Your task to perform on an android device: find which apps use the phone's location Image 0: 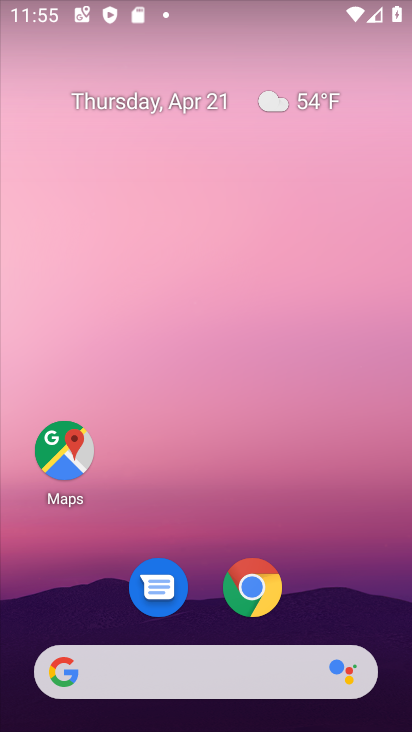
Step 0: drag from (341, 573) to (312, 4)
Your task to perform on an android device: find which apps use the phone's location Image 1: 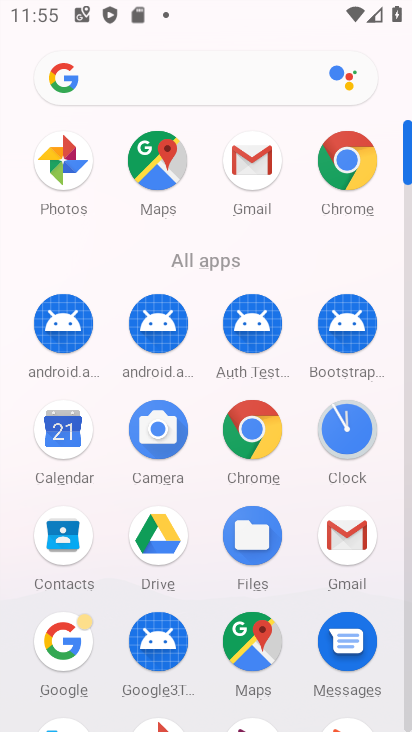
Step 1: drag from (408, 616) to (410, 457)
Your task to perform on an android device: find which apps use the phone's location Image 2: 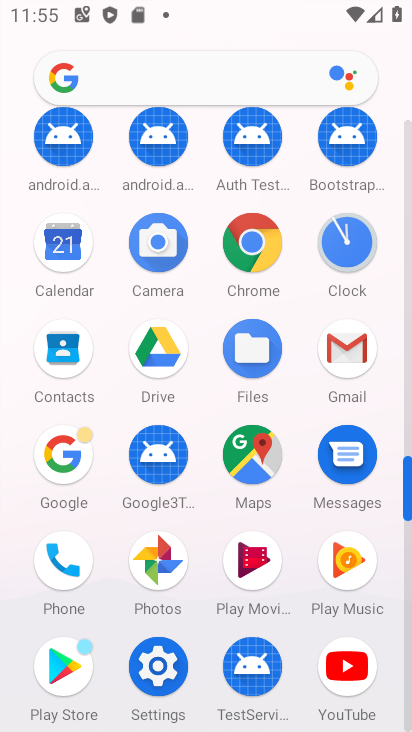
Step 2: click (151, 671)
Your task to perform on an android device: find which apps use the phone's location Image 3: 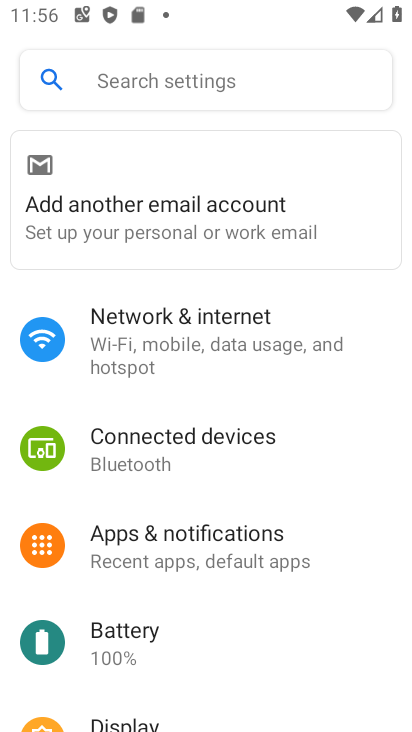
Step 3: drag from (266, 629) to (245, 140)
Your task to perform on an android device: find which apps use the phone's location Image 4: 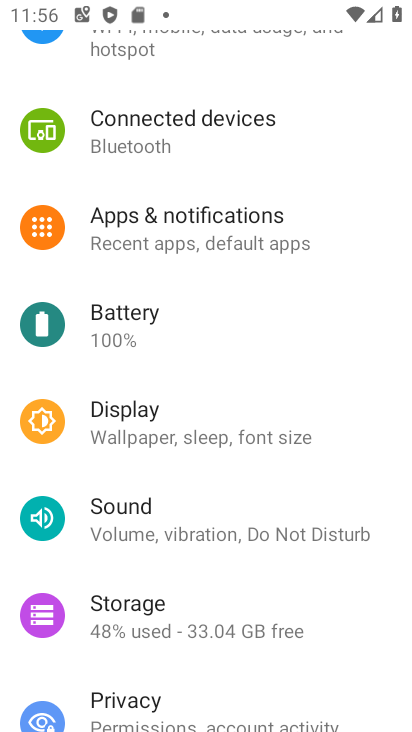
Step 4: drag from (242, 650) to (248, 276)
Your task to perform on an android device: find which apps use the phone's location Image 5: 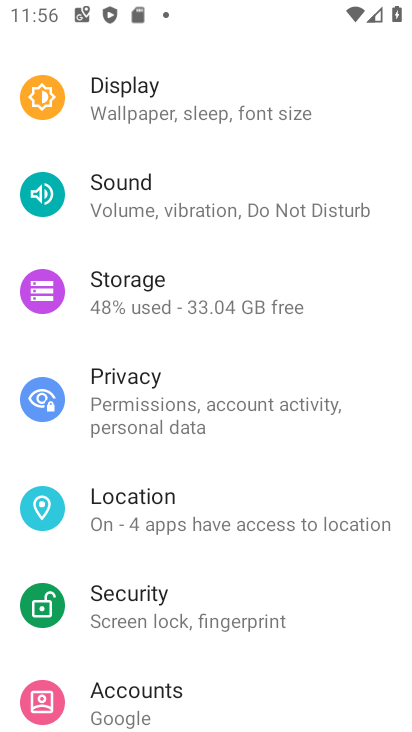
Step 5: click (130, 506)
Your task to perform on an android device: find which apps use the phone's location Image 6: 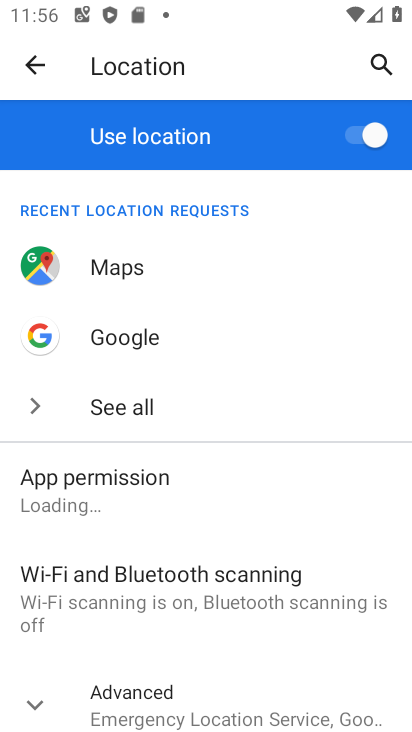
Step 6: click (71, 489)
Your task to perform on an android device: find which apps use the phone's location Image 7: 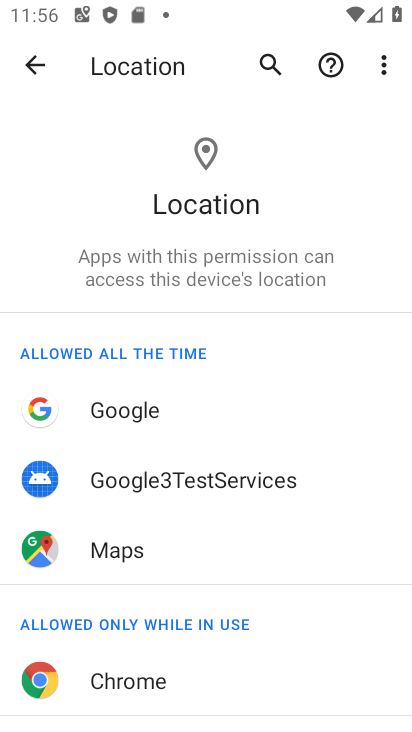
Step 7: task complete